Your task to perform on an android device: Toggle the flashlight Image 0: 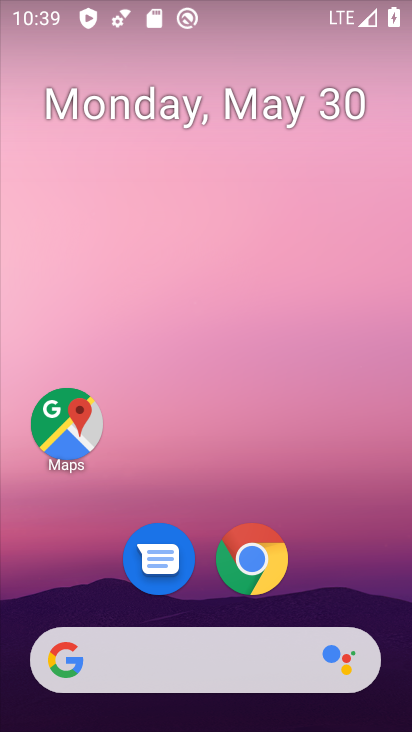
Step 0: drag from (270, 10) to (274, 291)
Your task to perform on an android device: Toggle the flashlight Image 1: 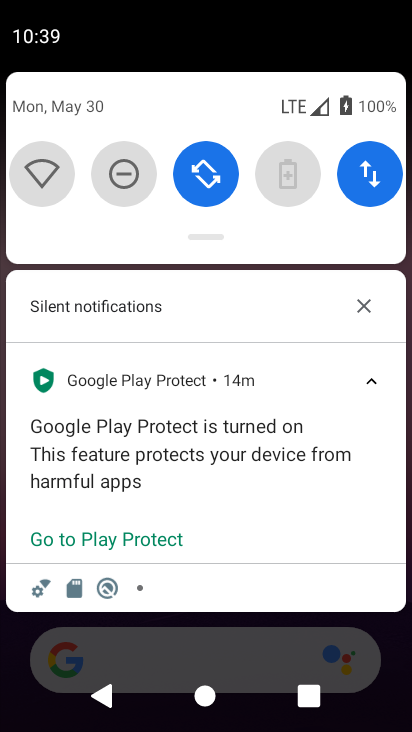
Step 1: drag from (252, 207) to (241, 424)
Your task to perform on an android device: Toggle the flashlight Image 2: 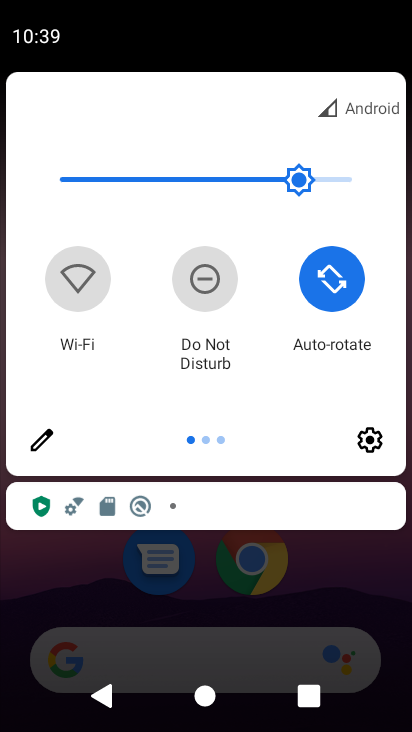
Step 2: click (39, 440)
Your task to perform on an android device: Toggle the flashlight Image 3: 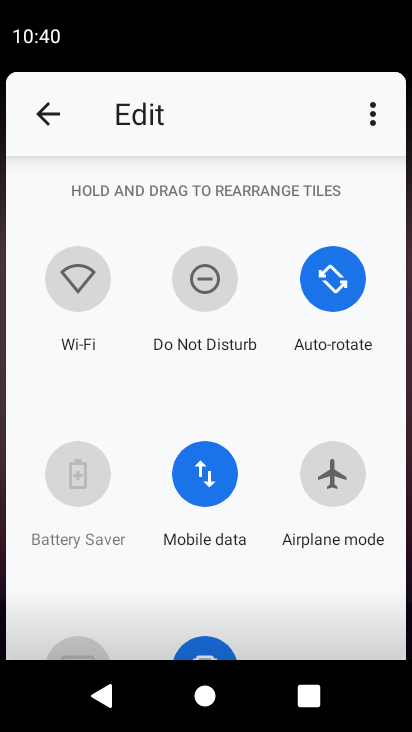
Step 3: task complete